Your task to perform on an android device: Open the map Image 0: 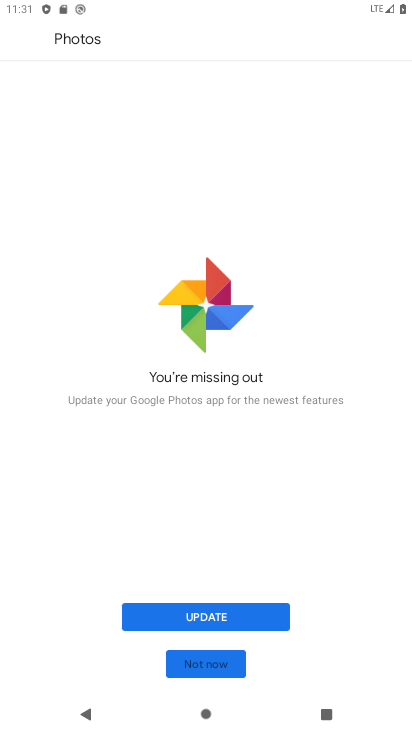
Step 0: press back button
Your task to perform on an android device: Open the map Image 1: 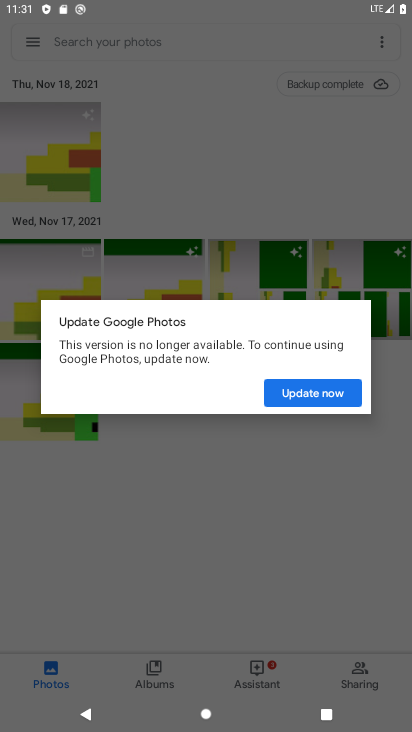
Step 1: press home button
Your task to perform on an android device: Open the map Image 2: 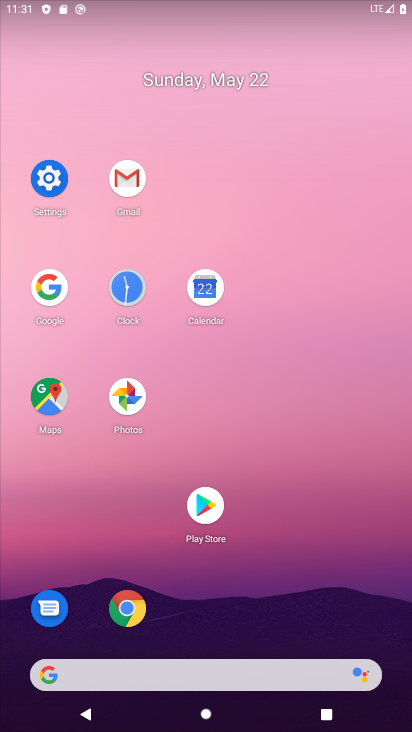
Step 2: click (57, 402)
Your task to perform on an android device: Open the map Image 3: 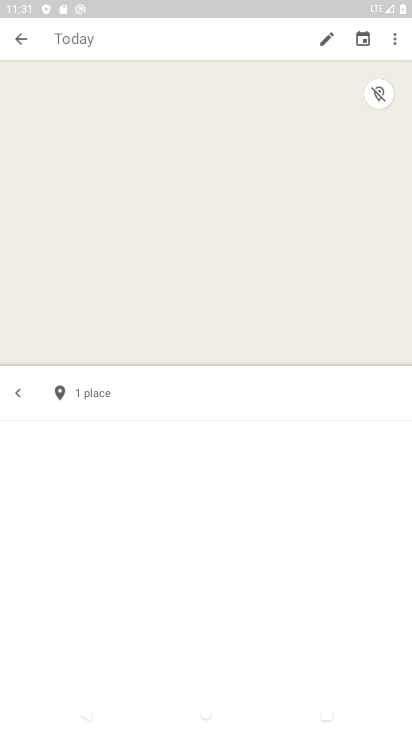
Step 3: task complete